Your task to perform on an android device: turn notification dots on Image 0: 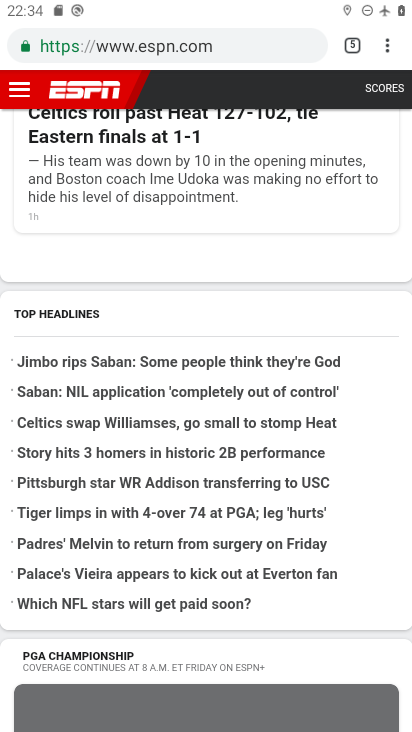
Step 0: press home button
Your task to perform on an android device: turn notification dots on Image 1: 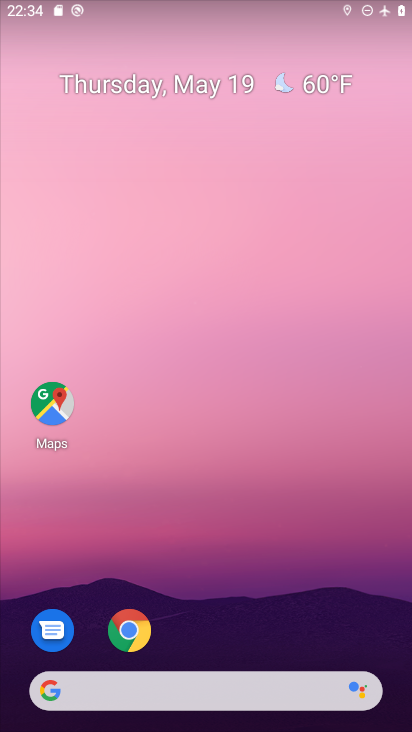
Step 1: drag from (236, 516) to (225, 144)
Your task to perform on an android device: turn notification dots on Image 2: 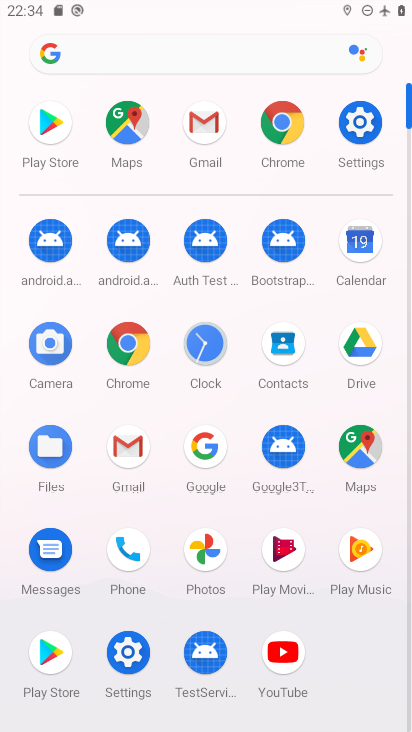
Step 2: click (356, 128)
Your task to perform on an android device: turn notification dots on Image 3: 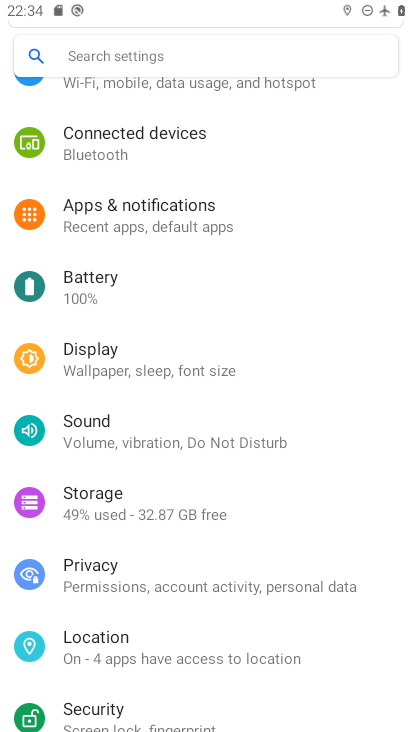
Step 3: click (176, 204)
Your task to perform on an android device: turn notification dots on Image 4: 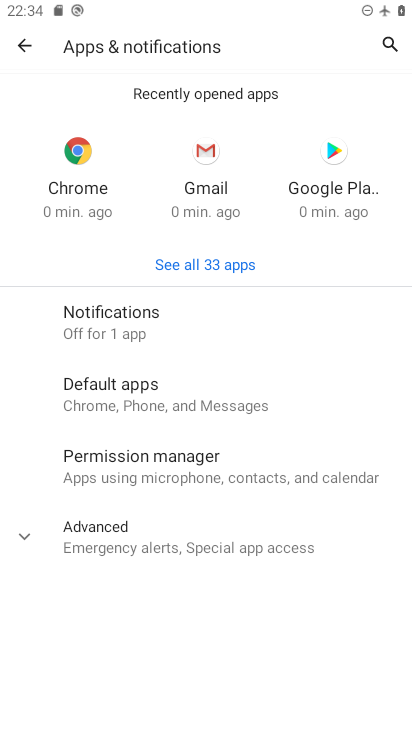
Step 4: click (114, 310)
Your task to perform on an android device: turn notification dots on Image 5: 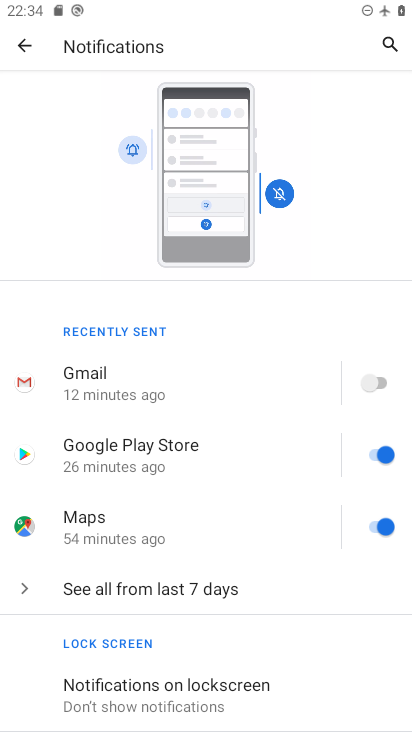
Step 5: drag from (290, 580) to (287, 267)
Your task to perform on an android device: turn notification dots on Image 6: 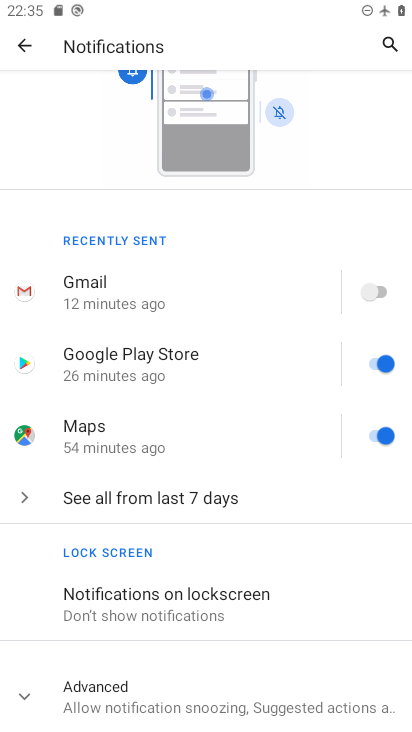
Step 6: click (41, 691)
Your task to perform on an android device: turn notification dots on Image 7: 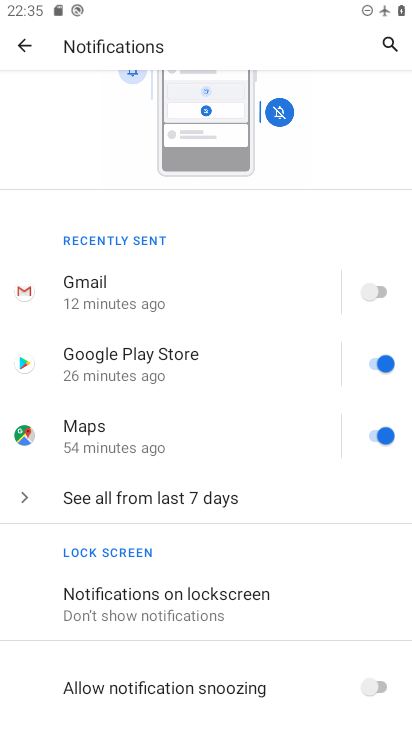
Step 7: task complete